Your task to perform on an android device: Open Google Chrome and open the bookmarks view Image 0: 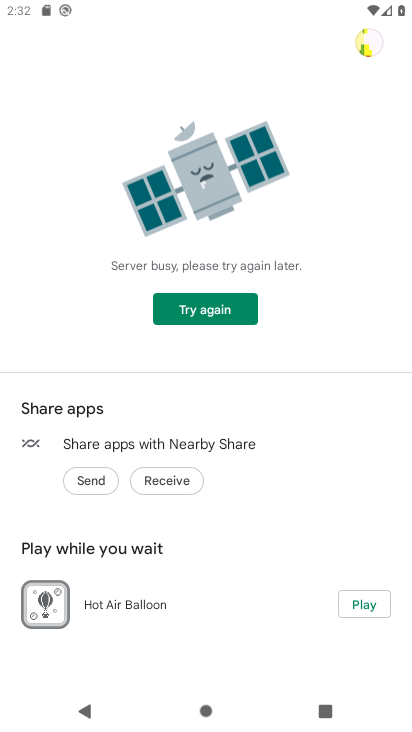
Step 0: press home button
Your task to perform on an android device: Open Google Chrome and open the bookmarks view Image 1: 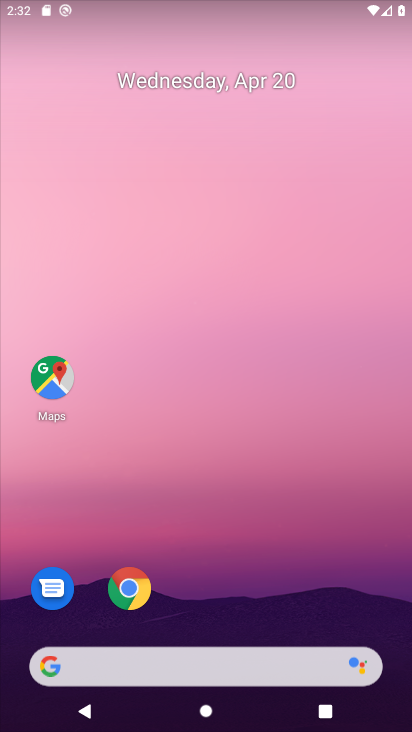
Step 1: click (129, 589)
Your task to perform on an android device: Open Google Chrome and open the bookmarks view Image 2: 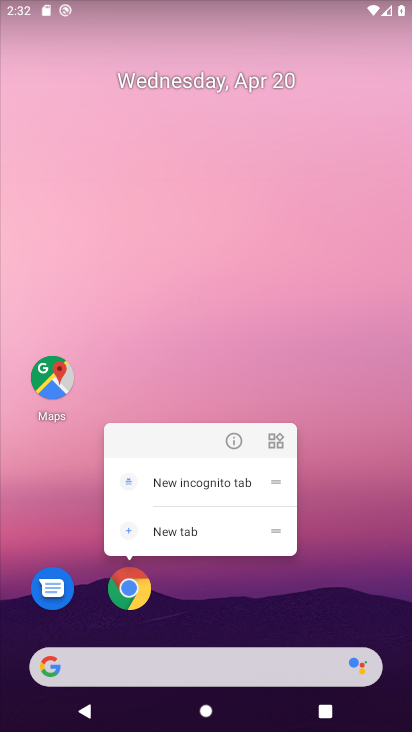
Step 2: click (129, 589)
Your task to perform on an android device: Open Google Chrome and open the bookmarks view Image 3: 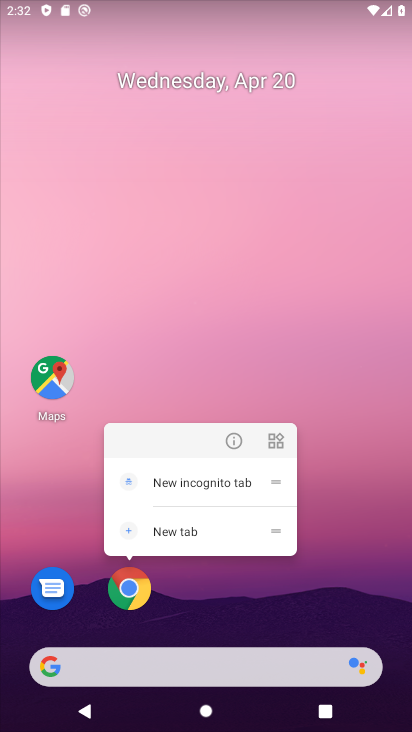
Step 3: click (129, 589)
Your task to perform on an android device: Open Google Chrome and open the bookmarks view Image 4: 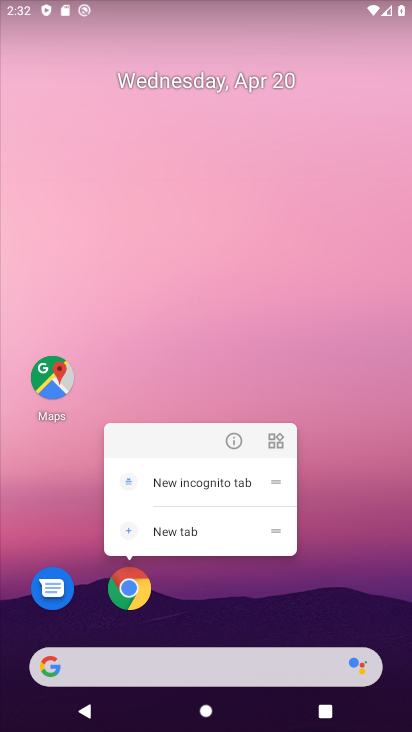
Step 4: click (264, 599)
Your task to perform on an android device: Open Google Chrome and open the bookmarks view Image 5: 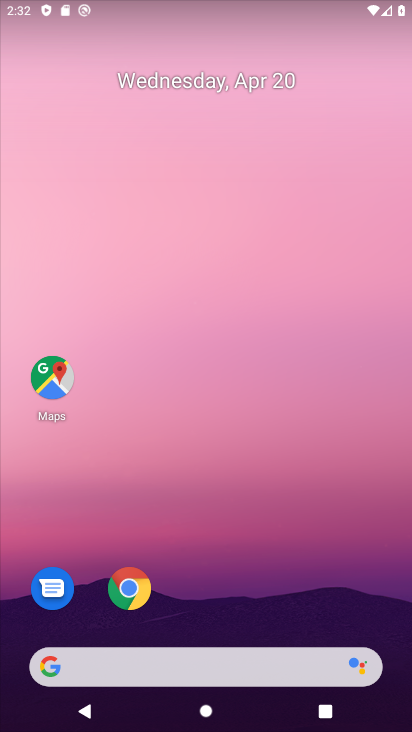
Step 5: click (128, 588)
Your task to perform on an android device: Open Google Chrome and open the bookmarks view Image 6: 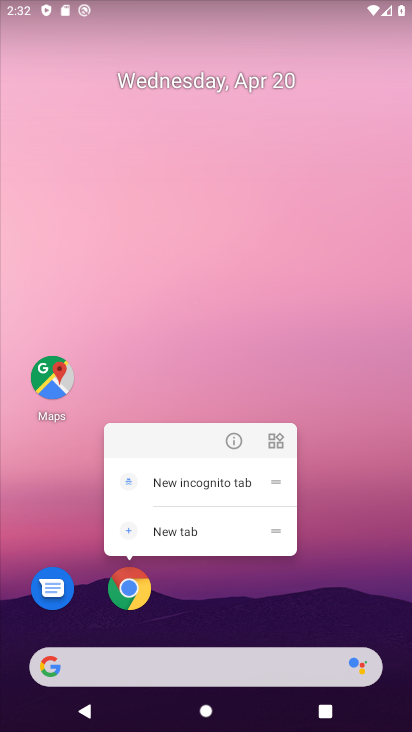
Step 6: click (141, 317)
Your task to perform on an android device: Open Google Chrome and open the bookmarks view Image 7: 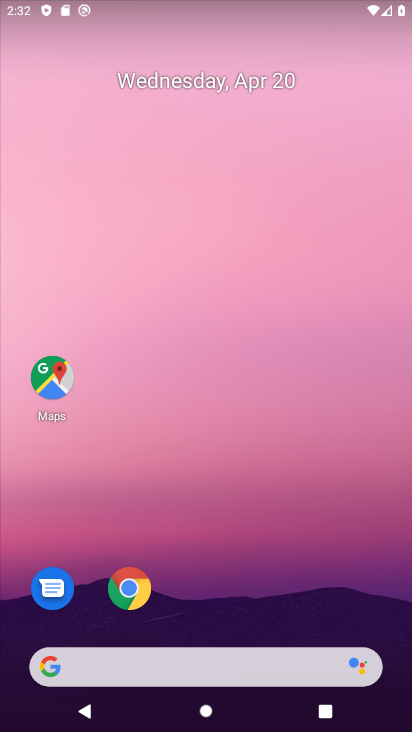
Step 7: click (129, 590)
Your task to perform on an android device: Open Google Chrome and open the bookmarks view Image 8: 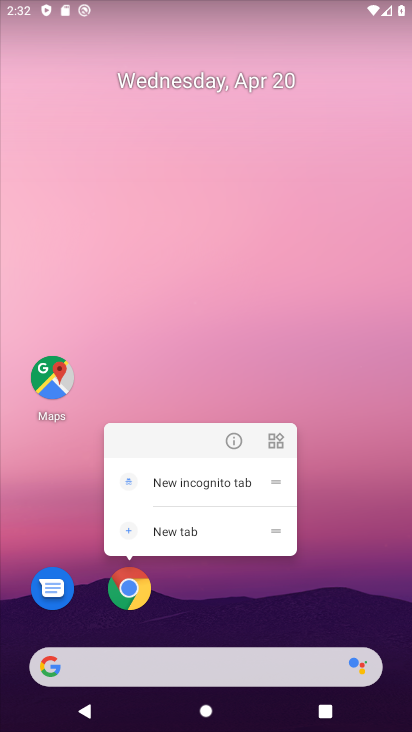
Step 8: click (127, 589)
Your task to perform on an android device: Open Google Chrome and open the bookmarks view Image 9: 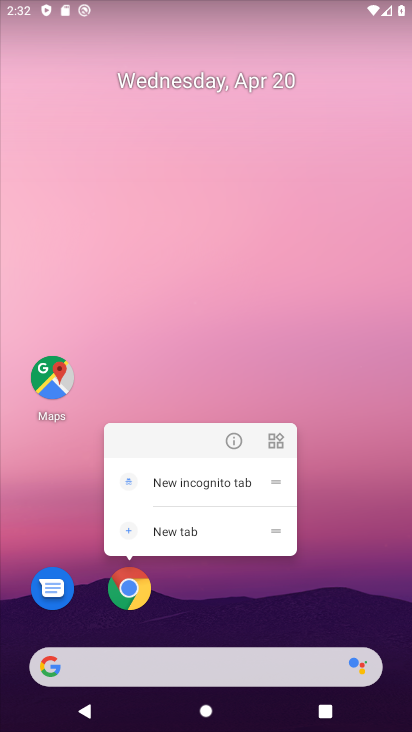
Step 9: click (127, 589)
Your task to perform on an android device: Open Google Chrome and open the bookmarks view Image 10: 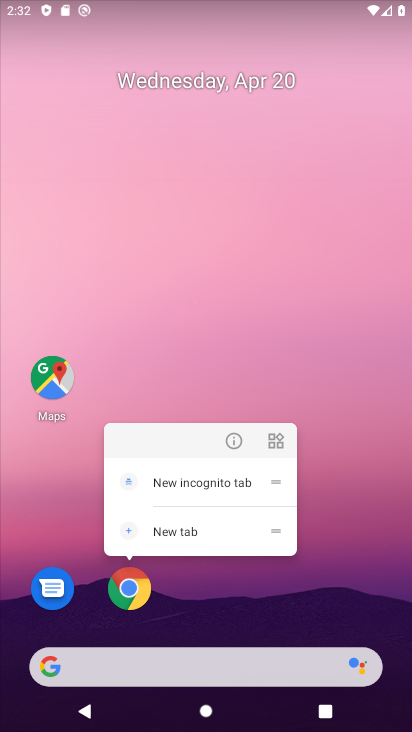
Step 10: click (198, 590)
Your task to perform on an android device: Open Google Chrome and open the bookmarks view Image 11: 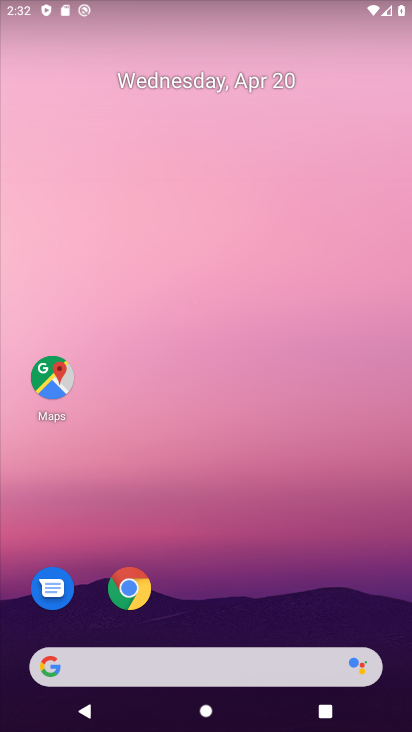
Step 11: click (132, 590)
Your task to perform on an android device: Open Google Chrome and open the bookmarks view Image 12: 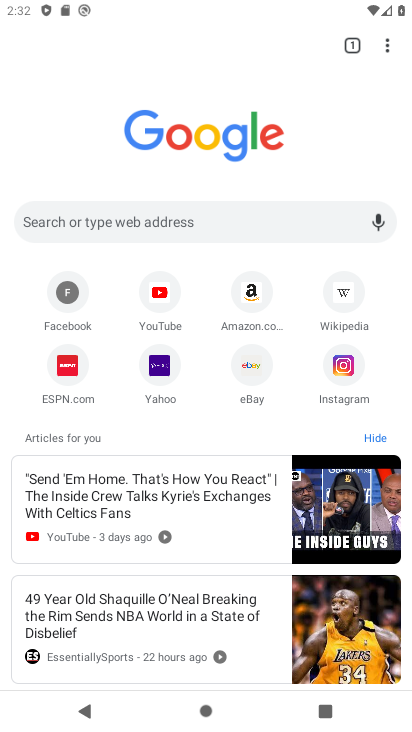
Step 12: click (383, 44)
Your task to perform on an android device: Open Google Chrome and open the bookmarks view Image 13: 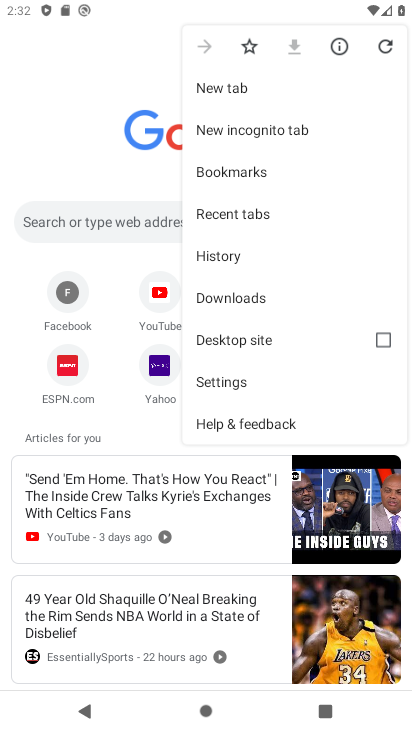
Step 13: click (247, 172)
Your task to perform on an android device: Open Google Chrome and open the bookmarks view Image 14: 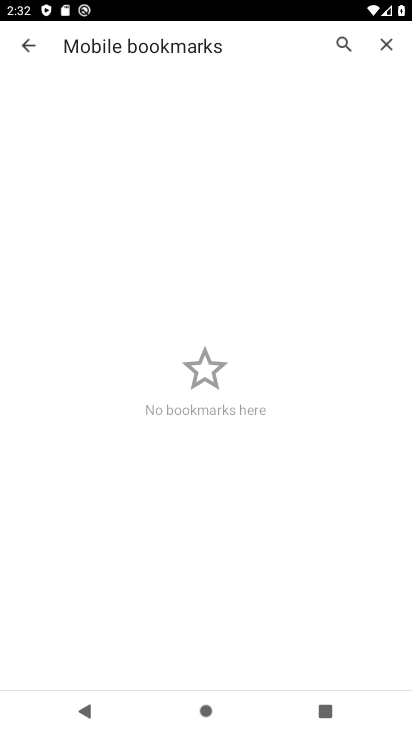
Step 14: task complete